Your task to perform on an android device: empty trash in google photos Image 0: 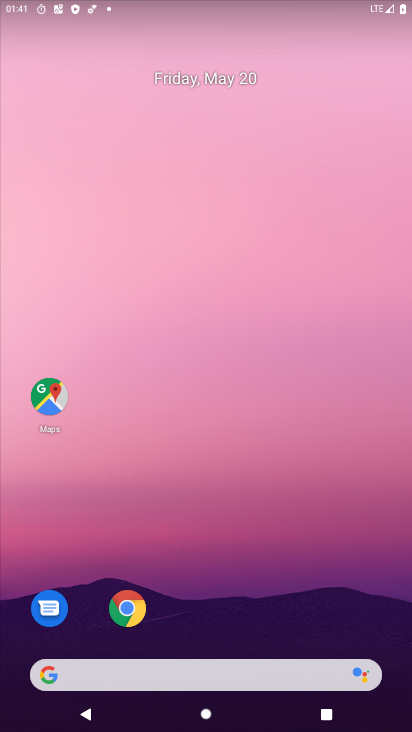
Step 0: drag from (358, 603) to (310, 178)
Your task to perform on an android device: empty trash in google photos Image 1: 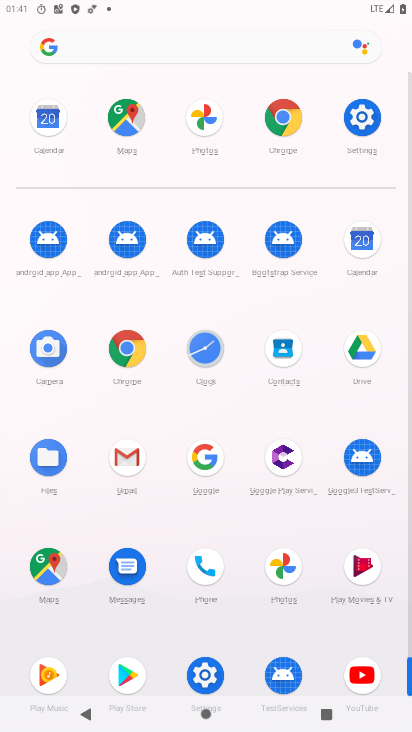
Step 1: click (275, 561)
Your task to perform on an android device: empty trash in google photos Image 2: 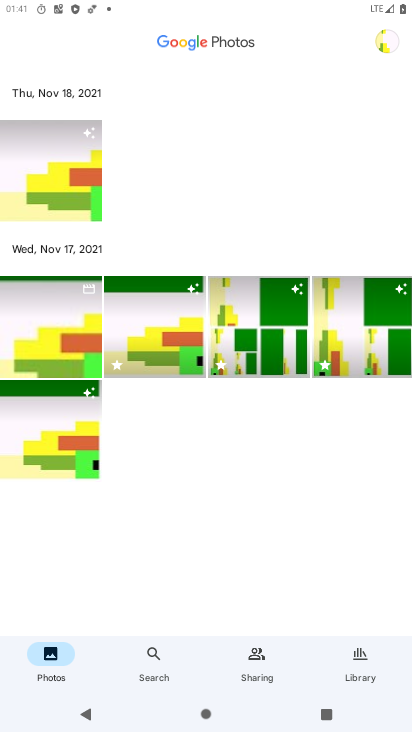
Step 2: click (364, 670)
Your task to perform on an android device: empty trash in google photos Image 3: 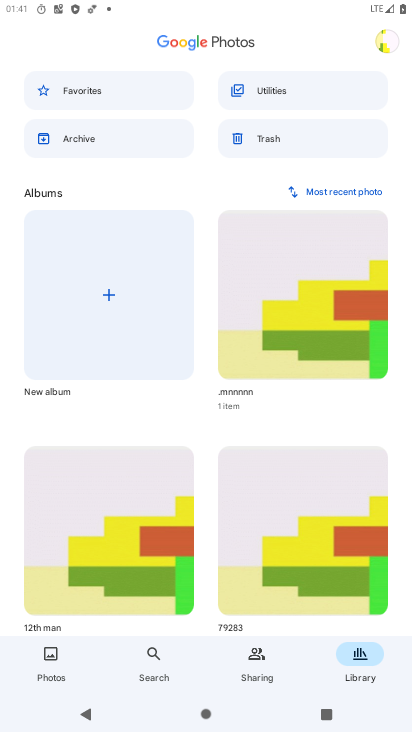
Step 3: click (276, 140)
Your task to perform on an android device: empty trash in google photos Image 4: 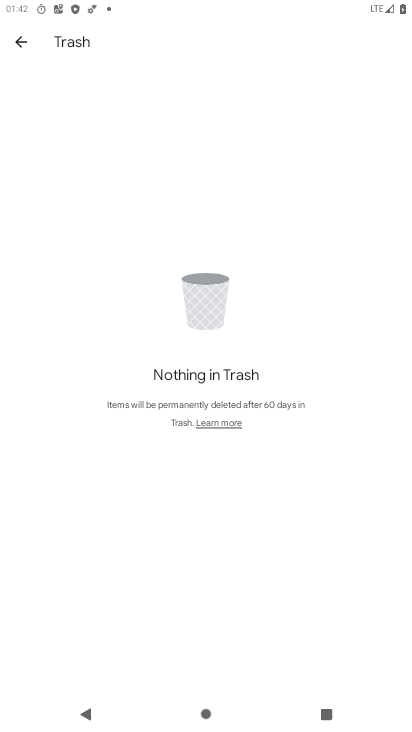
Step 4: task complete